Your task to perform on an android device: Search for "bose soundlink mini" on target, select the first entry, add it to the cart, then select checkout. Image 0: 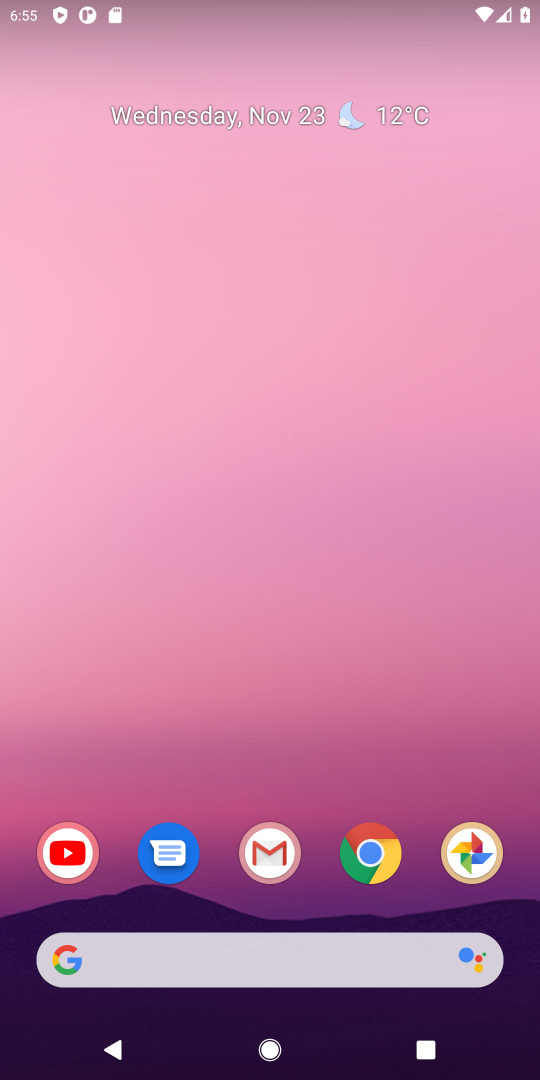
Step 0: click (372, 857)
Your task to perform on an android device: Search for "bose soundlink mini" on target, select the first entry, add it to the cart, then select checkout. Image 1: 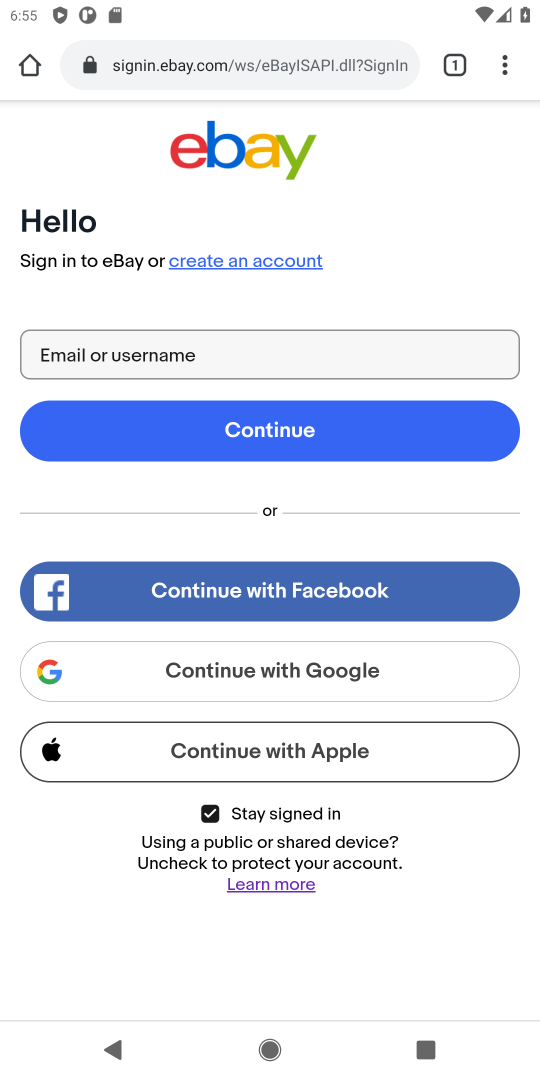
Step 1: click (231, 74)
Your task to perform on an android device: Search for "bose soundlink mini" on target, select the first entry, add it to the cart, then select checkout. Image 2: 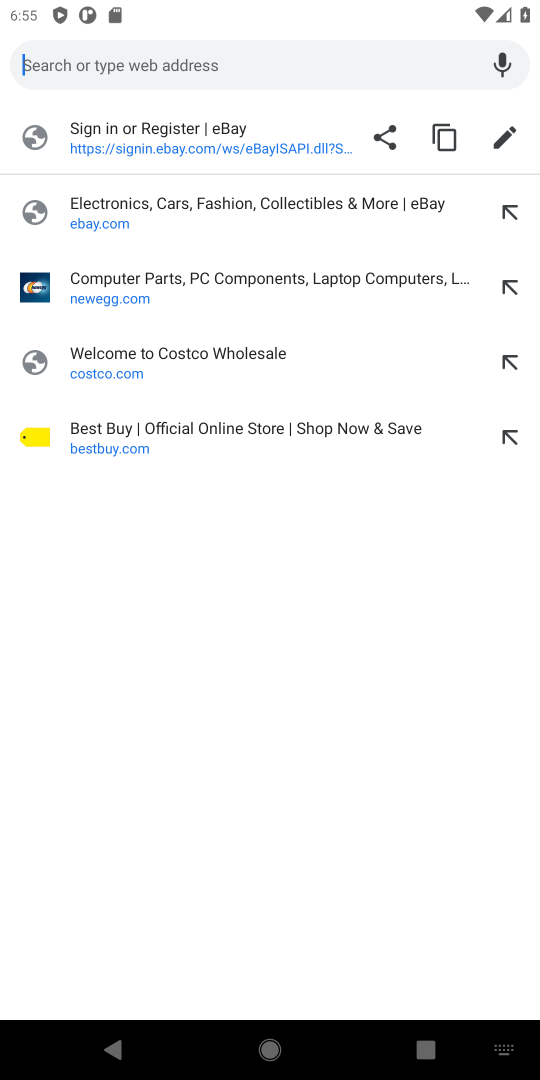
Step 2: type "target.com"
Your task to perform on an android device: Search for "bose soundlink mini" on target, select the first entry, add it to the cart, then select checkout. Image 3: 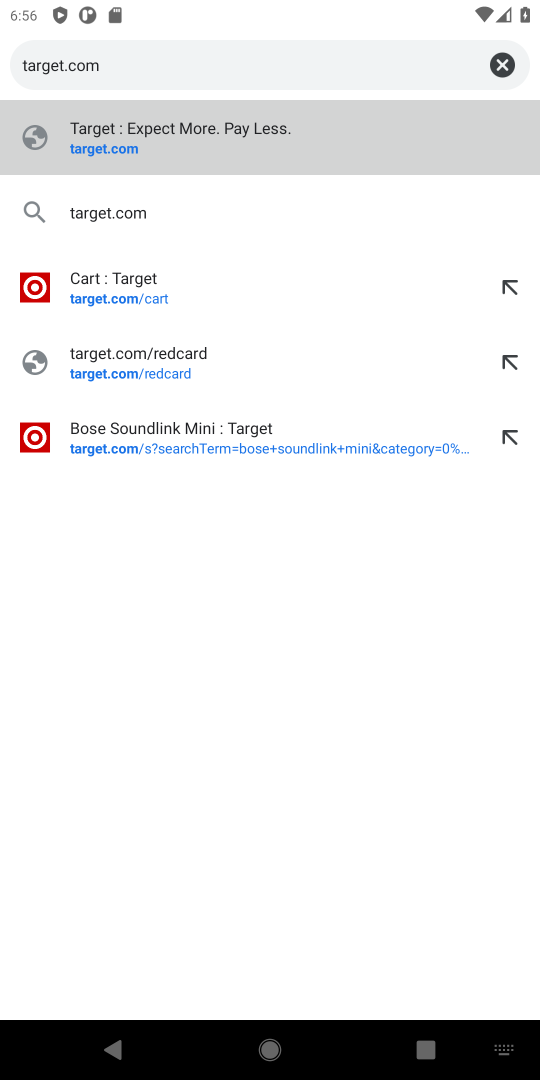
Step 3: click (105, 156)
Your task to perform on an android device: Search for "bose soundlink mini" on target, select the first entry, add it to the cart, then select checkout. Image 4: 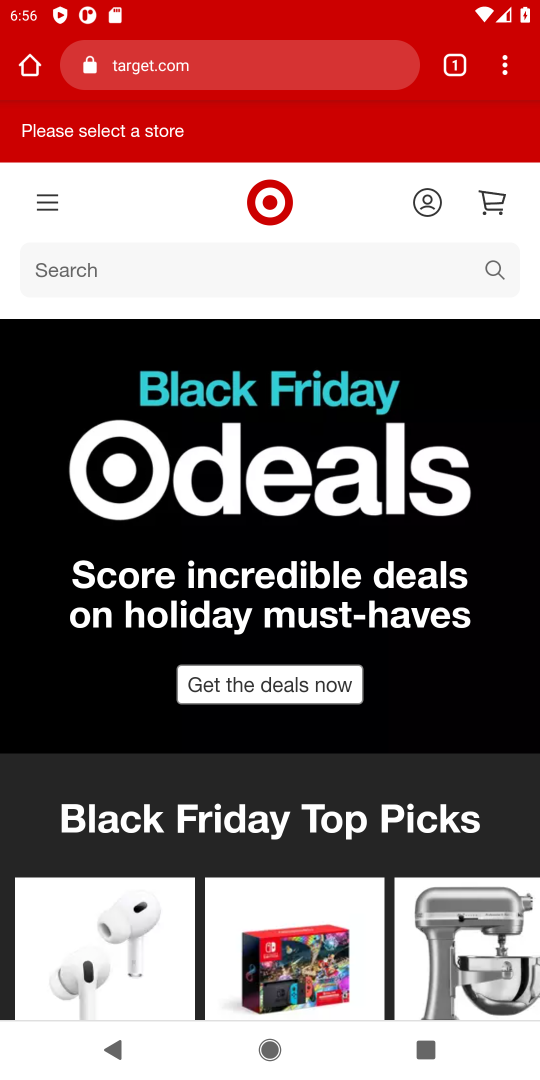
Step 4: click (497, 273)
Your task to perform on an android device: Search for "bose soundlink mini" on target, select the first entry, add it to the cart, then select checkout. Image 5: 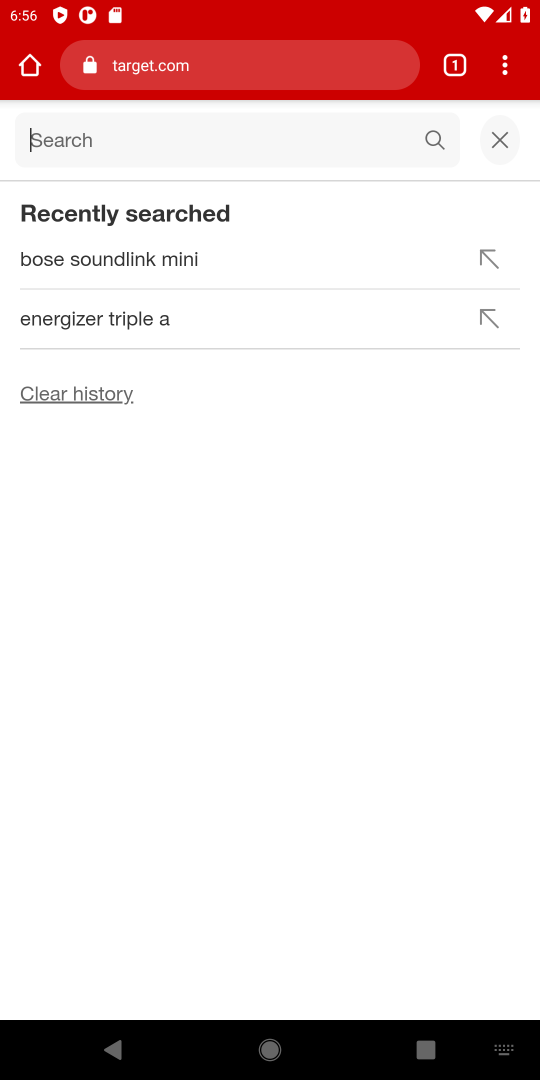
Step 5: type "bose soundlink mini"
Your task to perform on an android device: Search for "bose soundlink mini" on target, select the first entry, add it to the cart, then select checkout. Image 6: 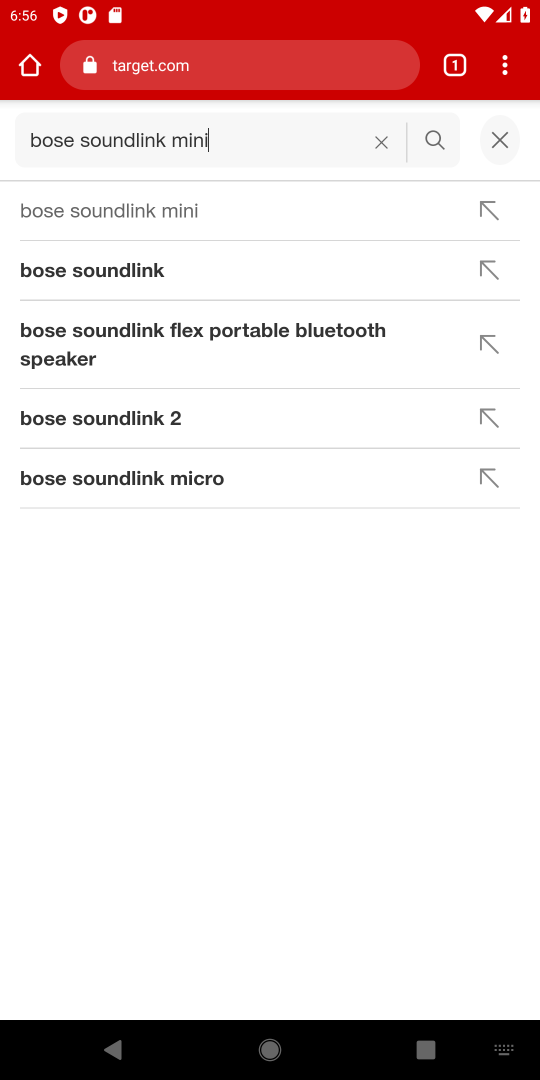
Step 6: click (84, 227)
Your task to perform on an android device: Search for "bose soundlink mini" on target, select the first entry, add it to the cart, then select checkout. Image 7: 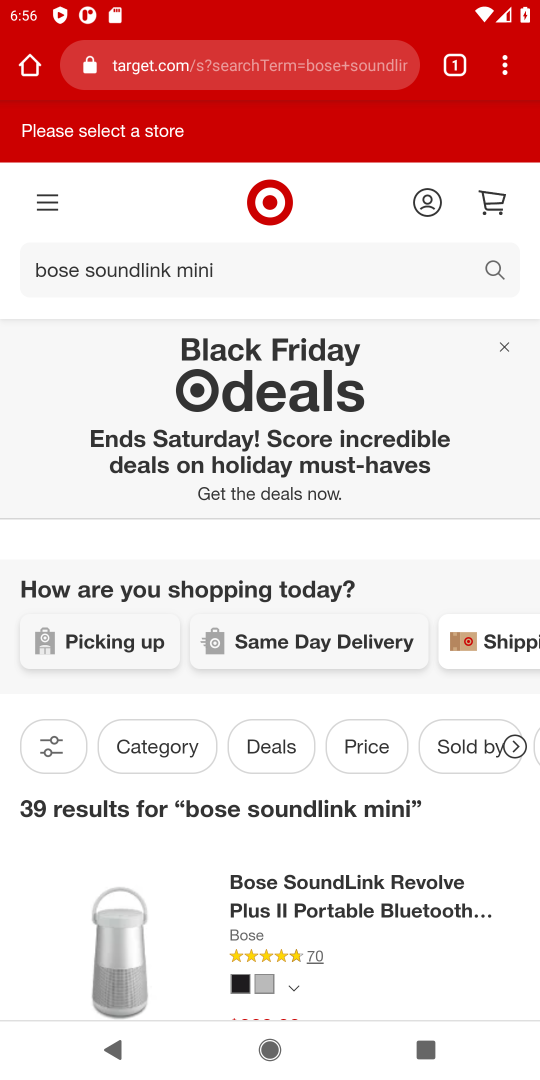
Step 7: task complete